Your task to perform on an android device: all mails in gmail Image 0: 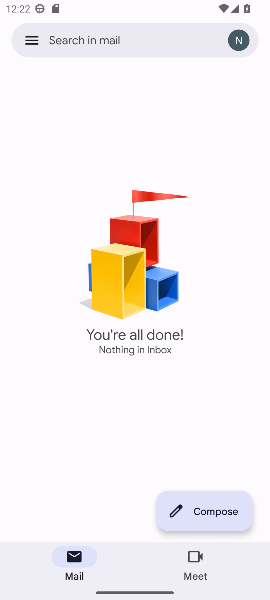
Step 0: press home button
Your task to perform on an android device: all mails in gmail Image 1: 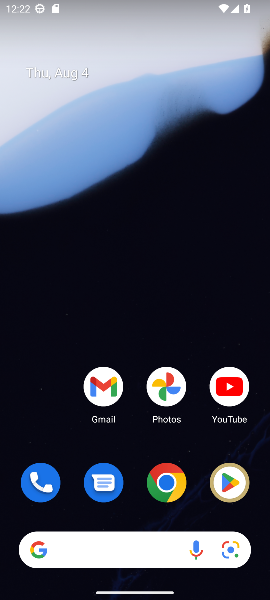
Step 1: drag from (133, 441) to (140, 256)
Your task to perform on an android device: all mails in gmail Image 2: 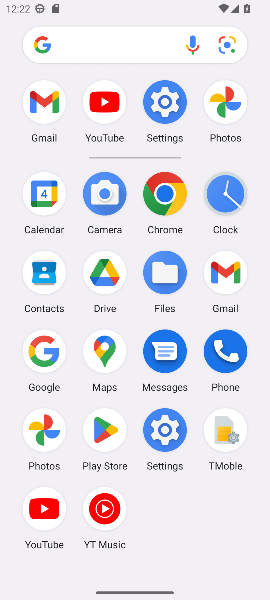
Step 2: click (46, 95)
Your task to perform on an android device: all mails in gmail Image 3: 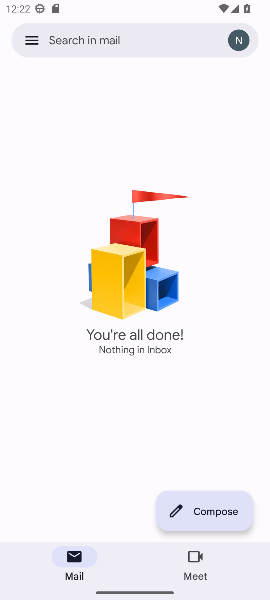
Step 3: click (32, 46)
Your task to perform on an android device: all mails in gmail Image 4: 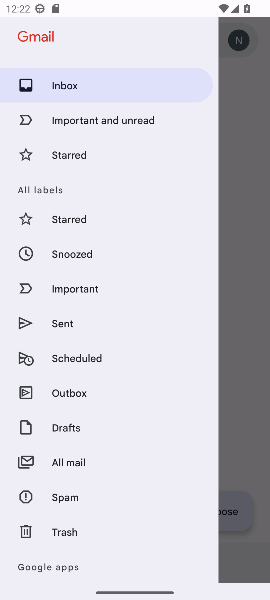
Step 4: click (84, 459)
Your task to perform on an android device: all mails in gmail Image 5: 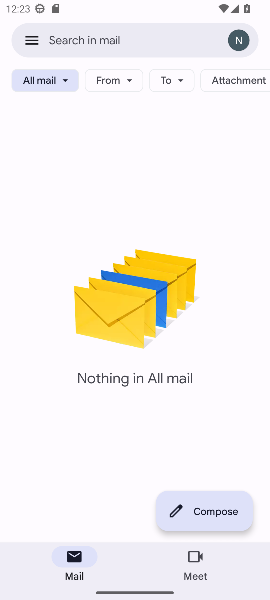
Step 5: task complete